Your task to perform on an android device: open app "Venmo" (install if not already installed) Image 0: 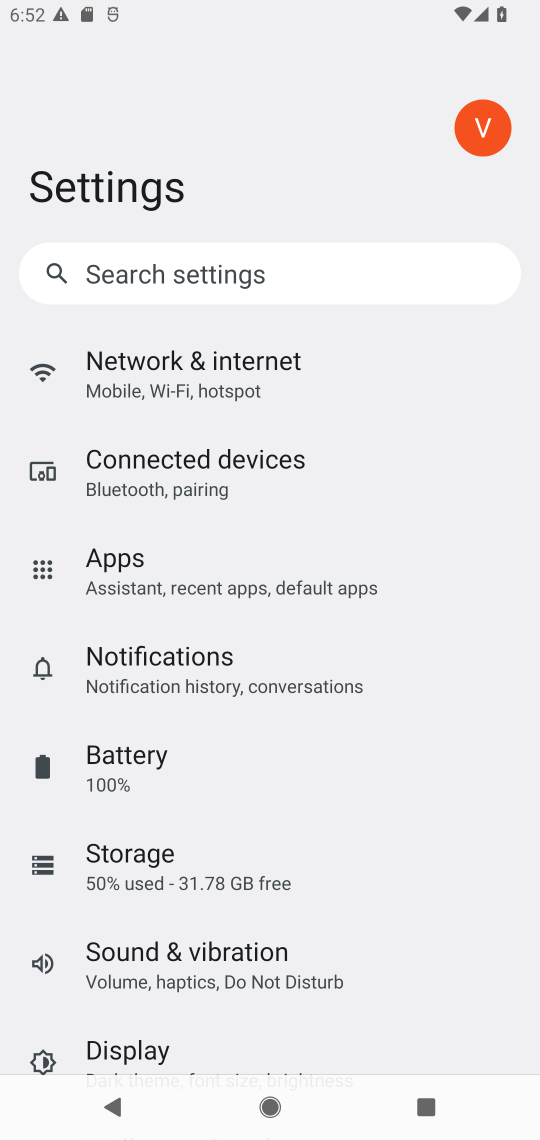
Step 0: press home button
Your task to perform on an android device: open app "Venmo" (install if not already installed) Image 1: 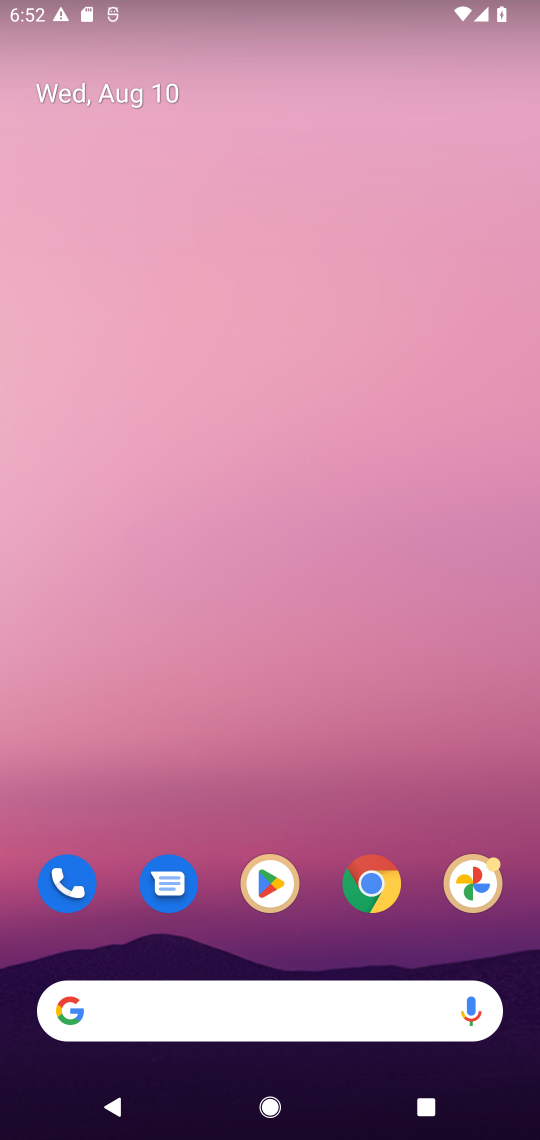
Step 1: drag from (322, 860) to (306, 203)
Your task to perform on an android device: open app "Venmo" (install if not already installed) Image 2: 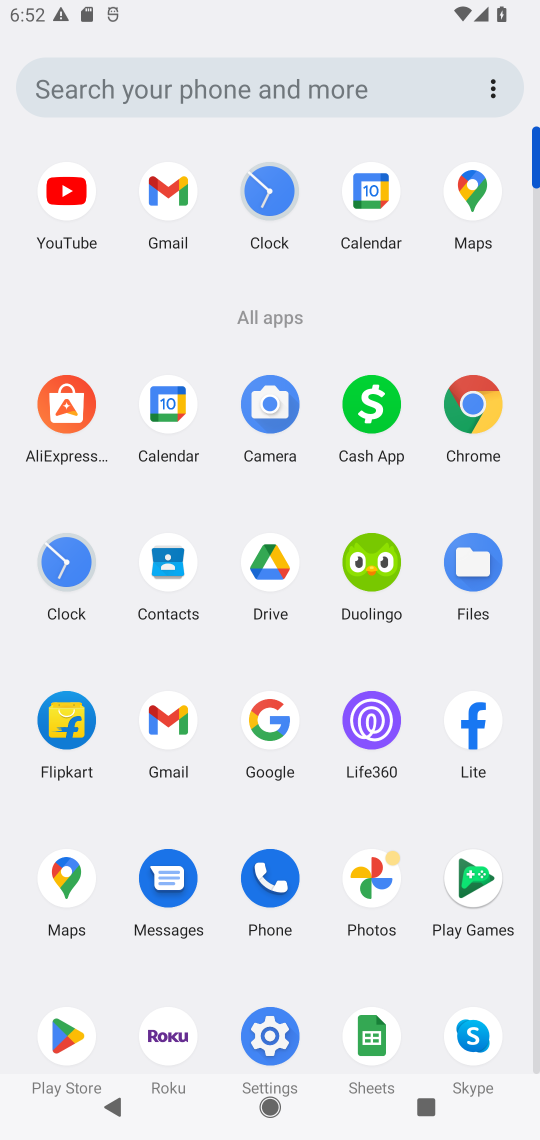
Step 2: click (61, 1035)
Your task to perform on an android device: open app "Venmo" (install if not already installed) Image 3: 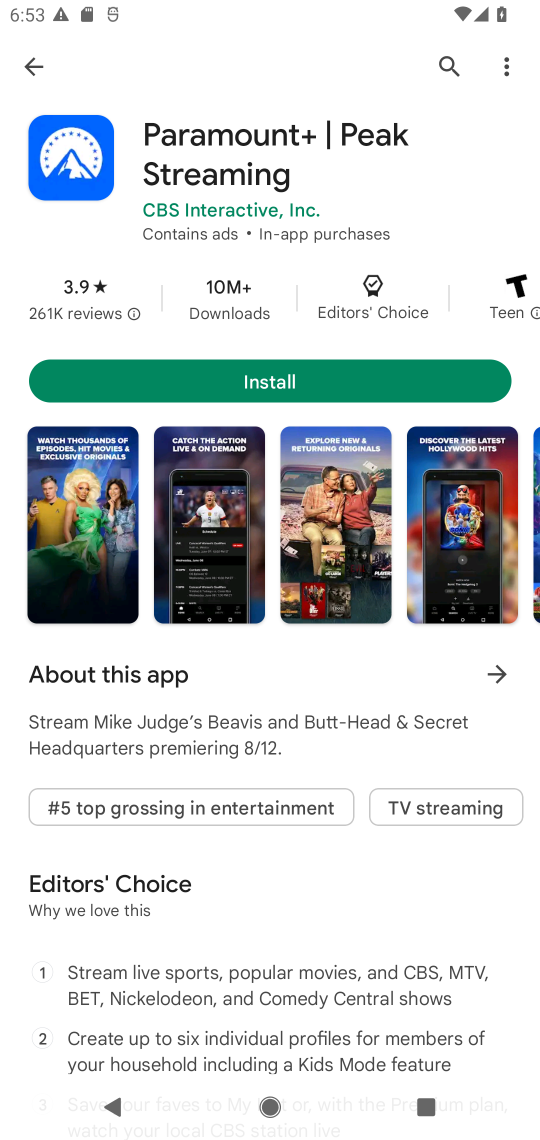
Step 3: click (451, 57)
Your task to perform on an android device: open app "Venmo" (install if not already installed) Image 4: 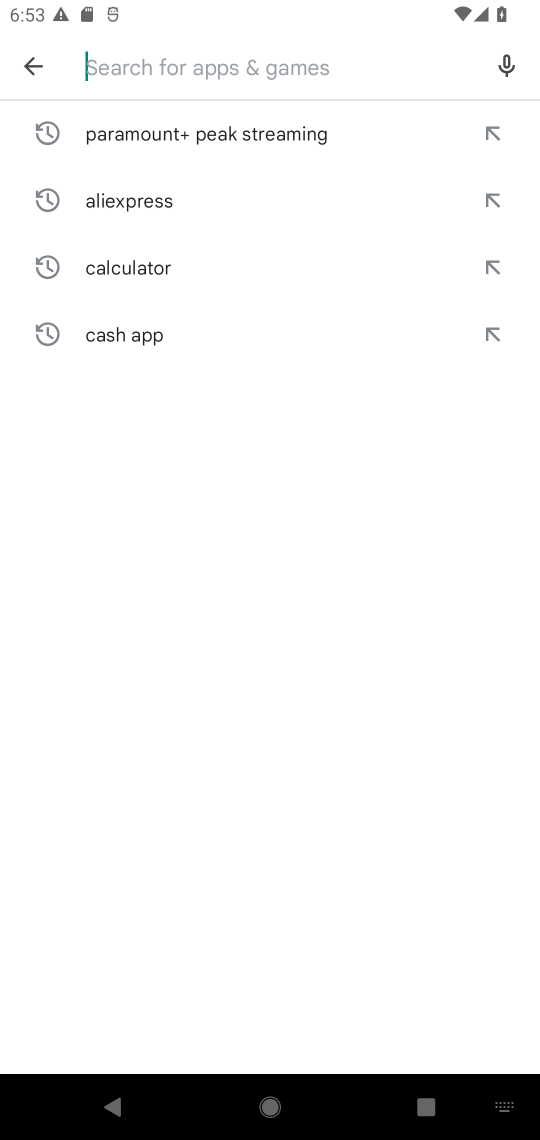
Step 4: type "Venmo"
Your task to perform on an android device: open app "Venmo" (install if not already installed) Image 5: 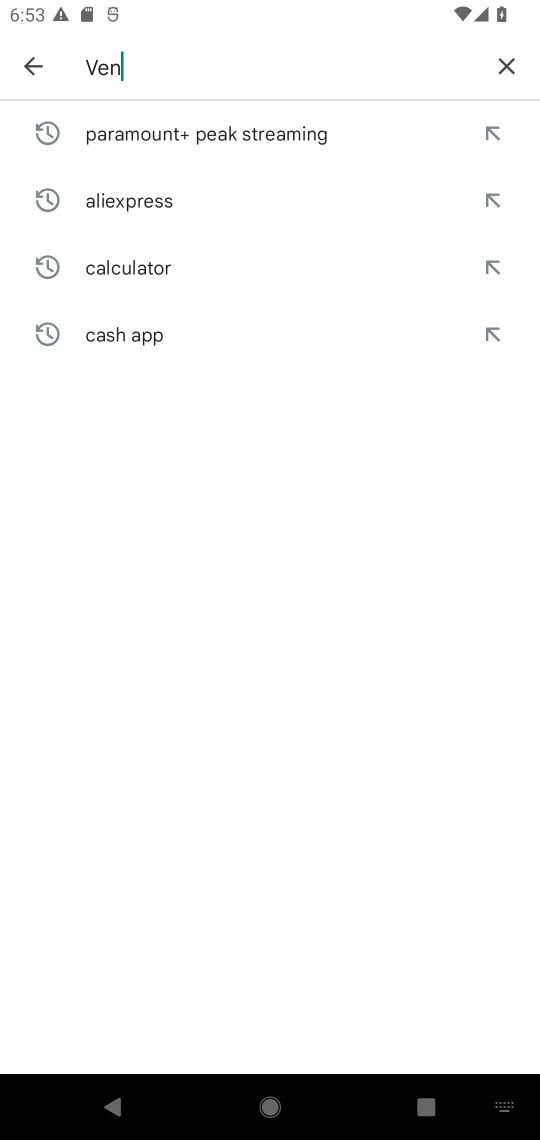
Step 5: type ""
Your task to perform on an android device: open app "Venmo" (install if not already installed) Image 6: 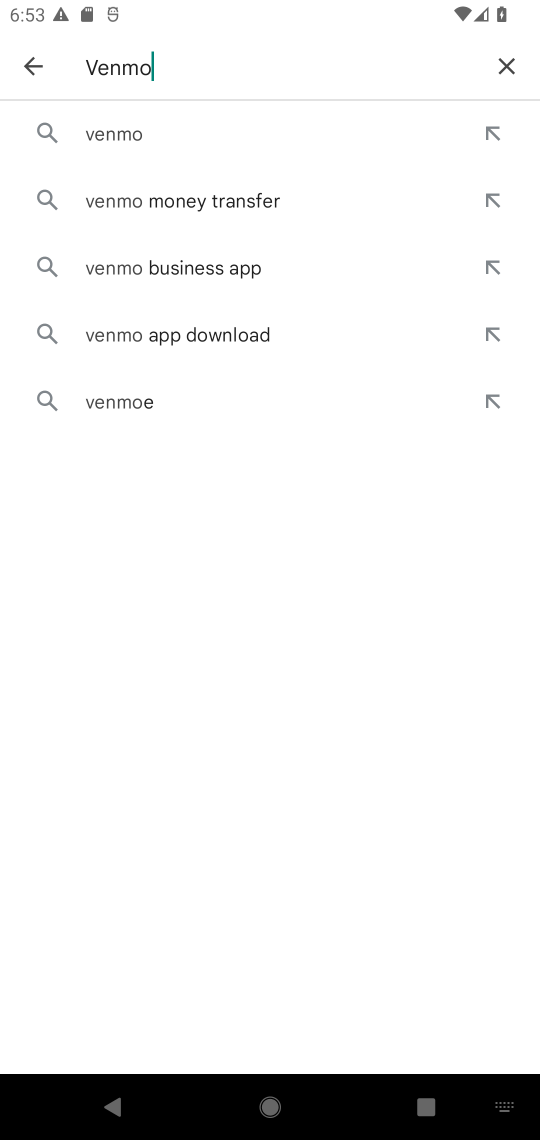
Step 6: click (123, 124)
Your task to perform on an android device: open app "Venmo" (install if not already installed) Image 7: 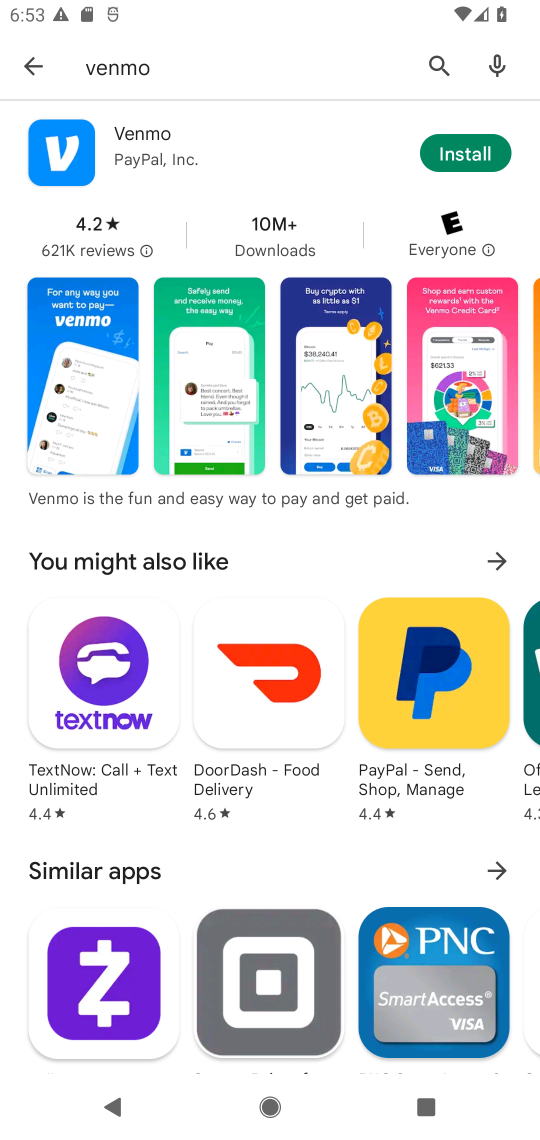
Step 7: click (478, 152)
Your task to perform on an android device: open app "Venmo" (install if not already installed) Image 8: 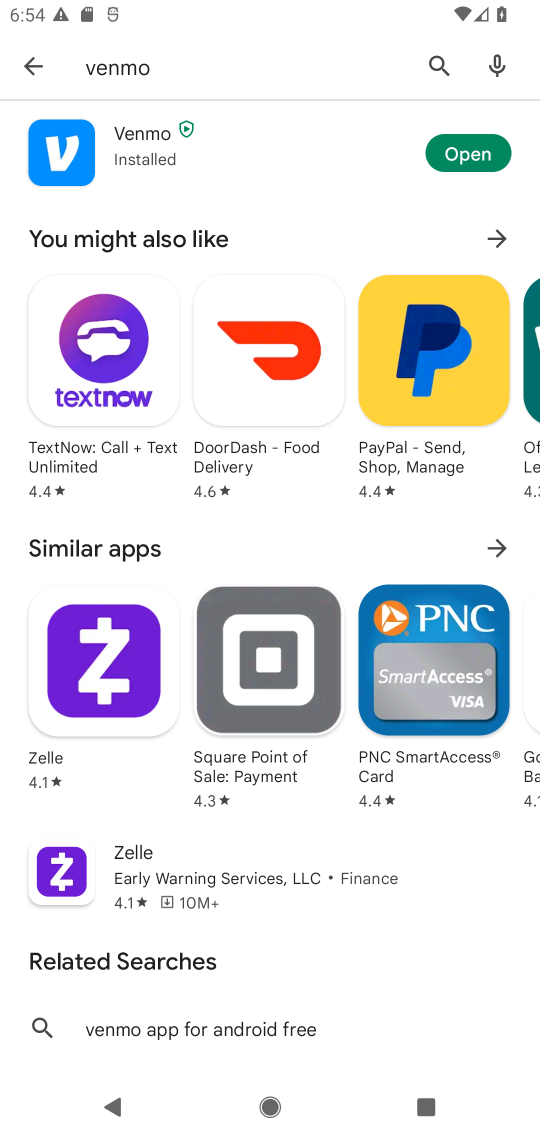
Step 8: click (458, 134)
Your task to perform on an android device: open app "Venmo" (install if not already installed) Image 9: 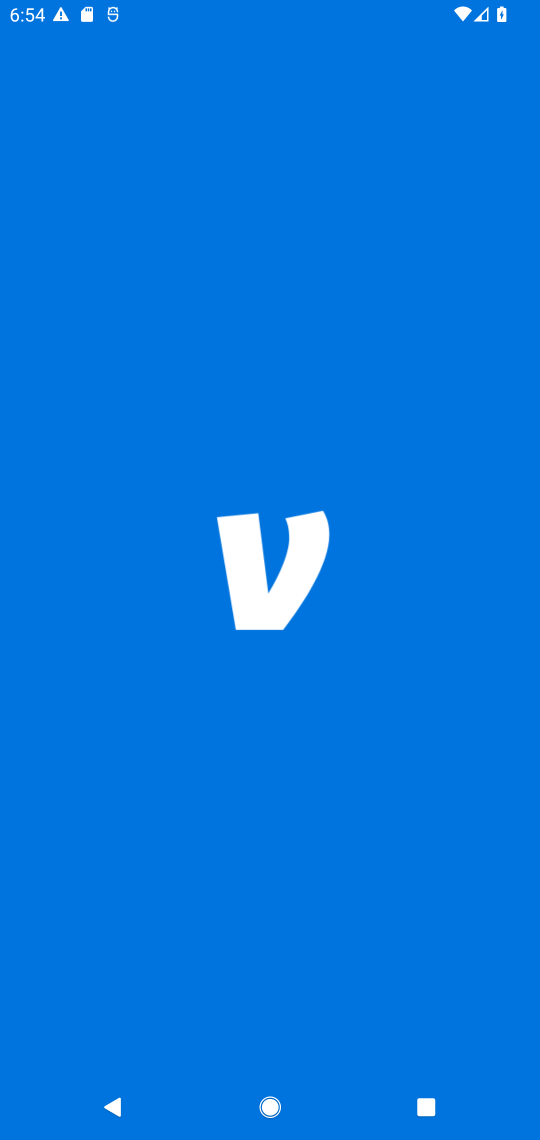
Step 9: task complete